Your task to perform on an android device: Open settings Image 0: 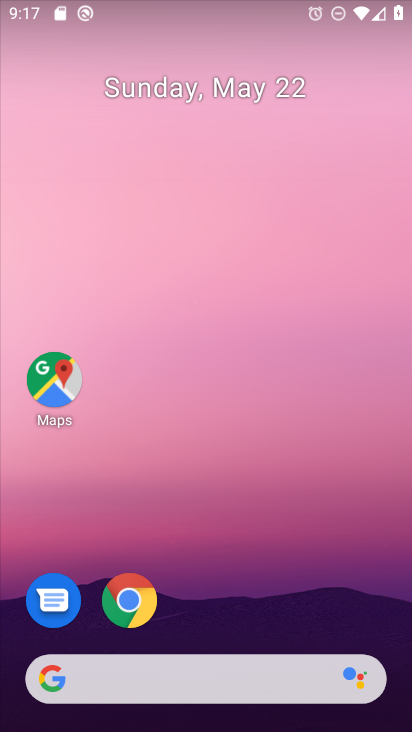
Step 0: drag from (200, 580) to (246, 85)
Your task to perform on an android device: Open settings Image 1: 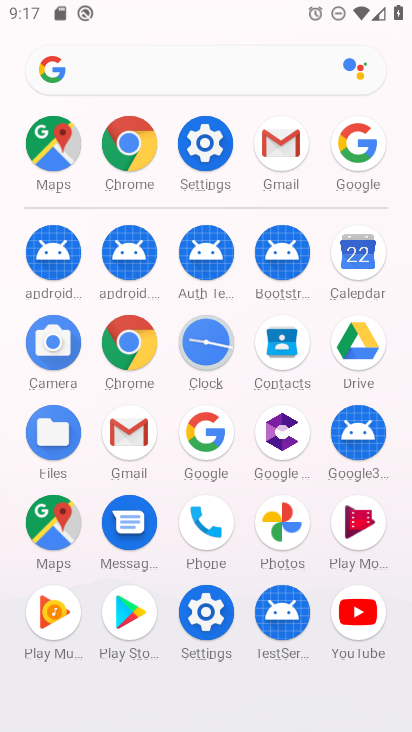
Step 1: click (197, 152)
Your task to perform on an android device: Open settings Image 2: 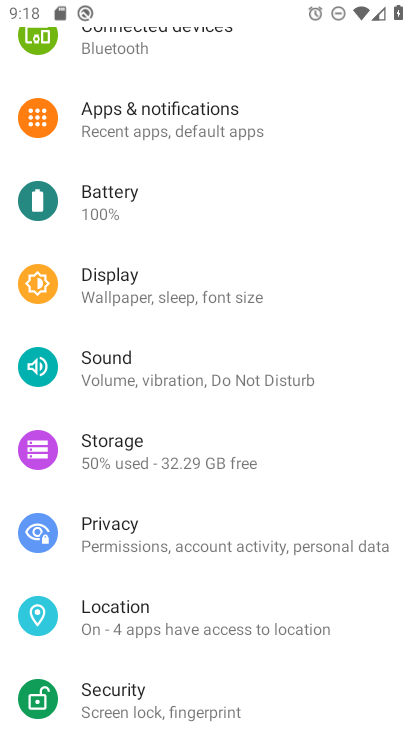
Step 2: task complete